Your task to perform on an android device: Go to Amazon Image 0: 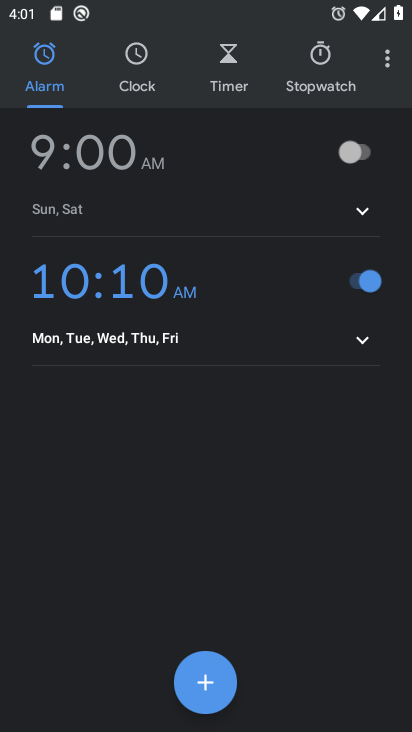
Step 0: press home button
Your task to perform on an android device: Go to Amazon Image 1: 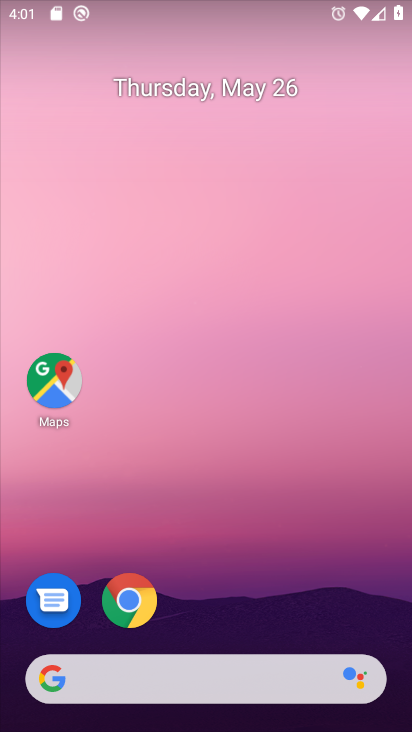
Step 1: click (129, 599)
Your task to perform on an android device: Go to Amazon Image 2: 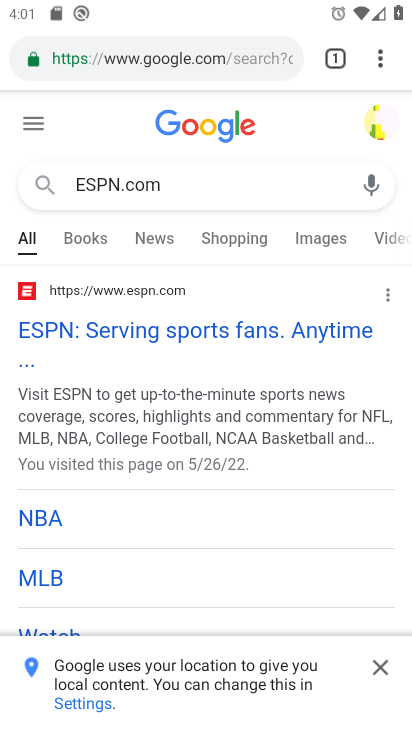
Step 2: click (236, 51)
Your task to perform on an android device: Go to Amazon Image 3: 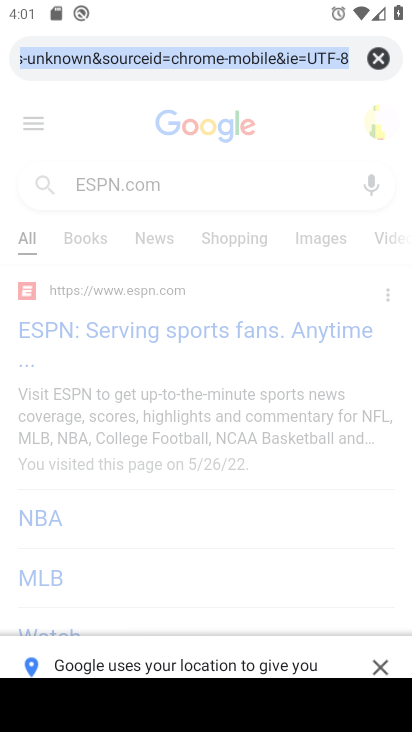
Step 3: type "Amazon"
Your task to perform on an android device: Go to Amazon Image 4: 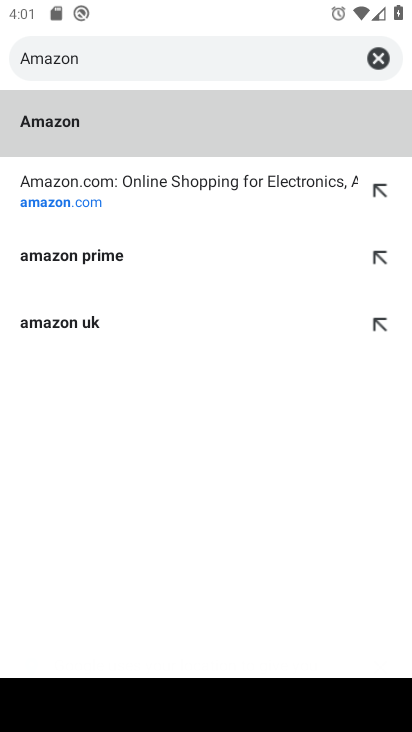
Step 4: click (115, 142)
Your task to perform on an android device: Go to Amazon Image 5: 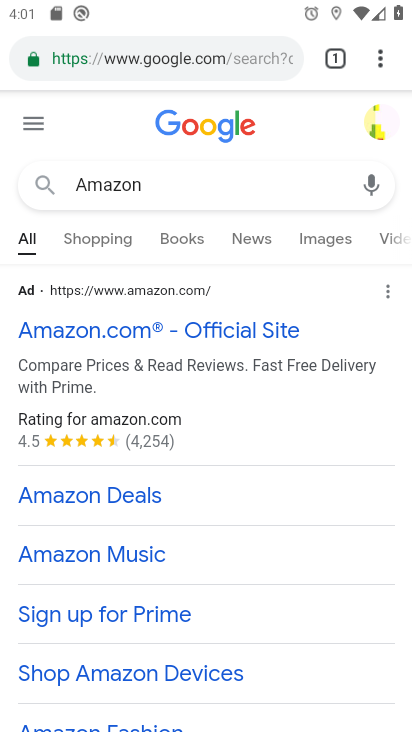
Step 5: task complete